Your task to perform on an android device: Open the Play Movies app and select the watchlist tab. Image 0: 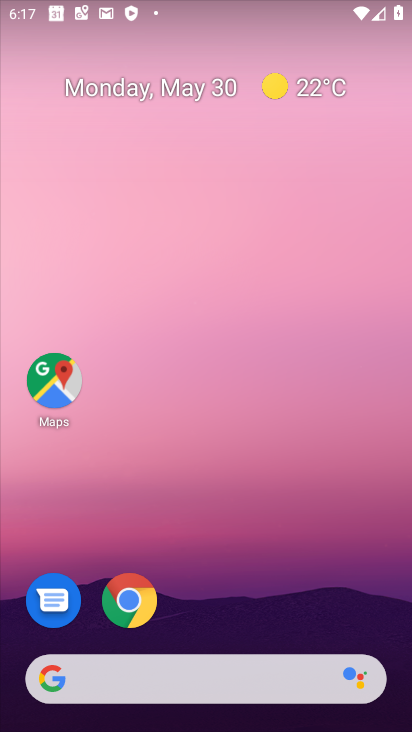
Step 0: press home button
Your task to perform on an android device: Open the Play Movies app and select the watchlist tab. Image 1: 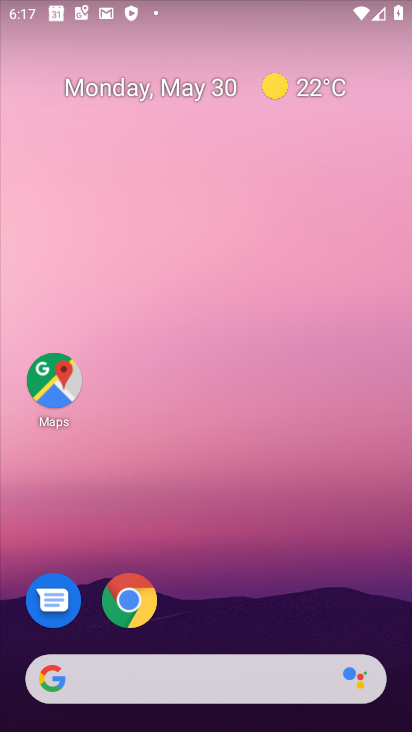
Step 1: drag from (252, 628) to (275, 247)
Your task to perform on an android device: Open the Play Movies app and select the watchlist tab. Image 2: 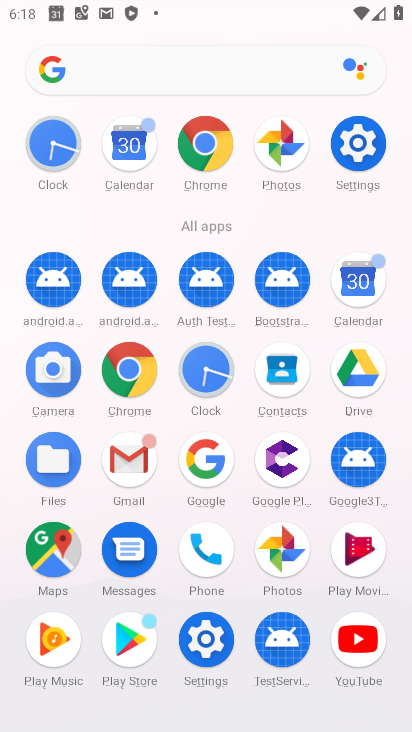
Step 2: click (359, 544)
Your task to perform on an android device: Open the Play Movies app and select the watchlist tab. Image 3: 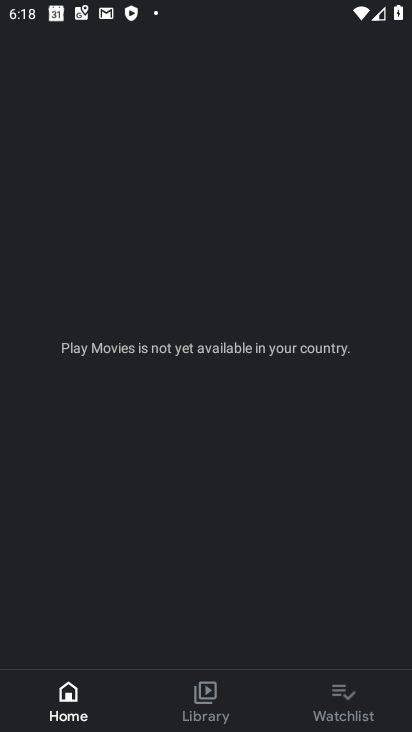
Step 3: click (348, 699)
Your task to perform on an android device: Open the Play Movies app and select the watchlist tab. Image 4: 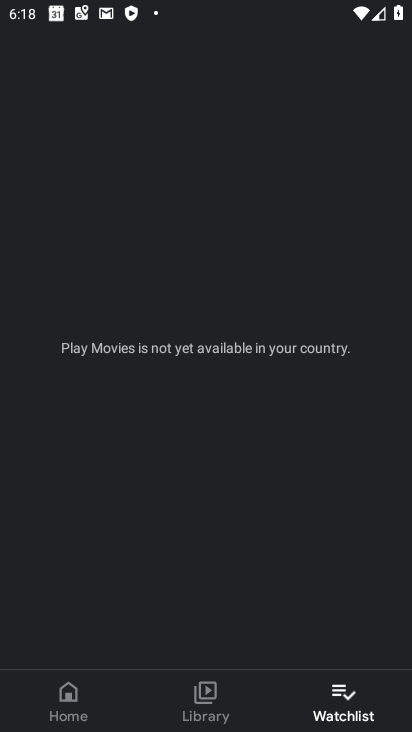
Step 4: task complete